Your task to perform on an android device: empty trash in google photos Image 0: 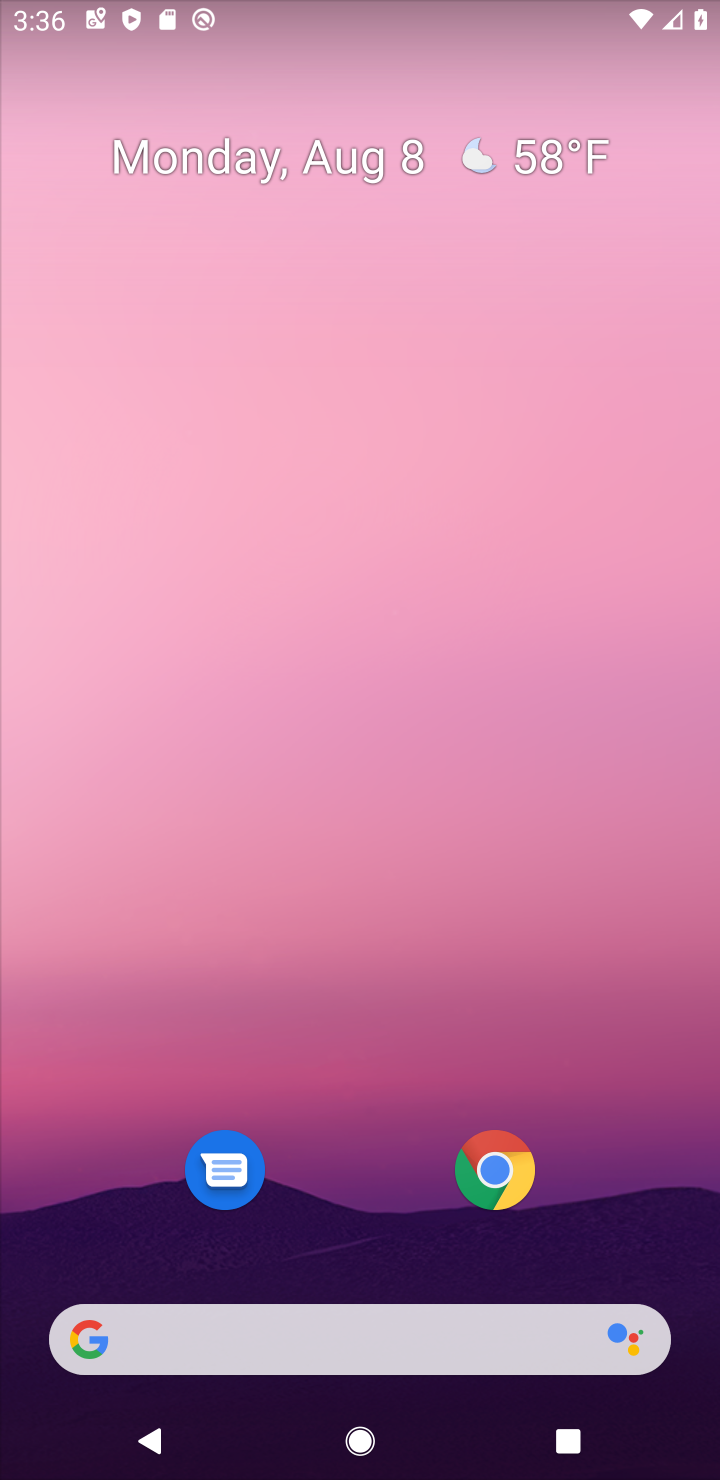
Step 0: drag from (386, 1119) to (384, 399)
Your task to perform on an android device: empty trash in google photos Image 1: 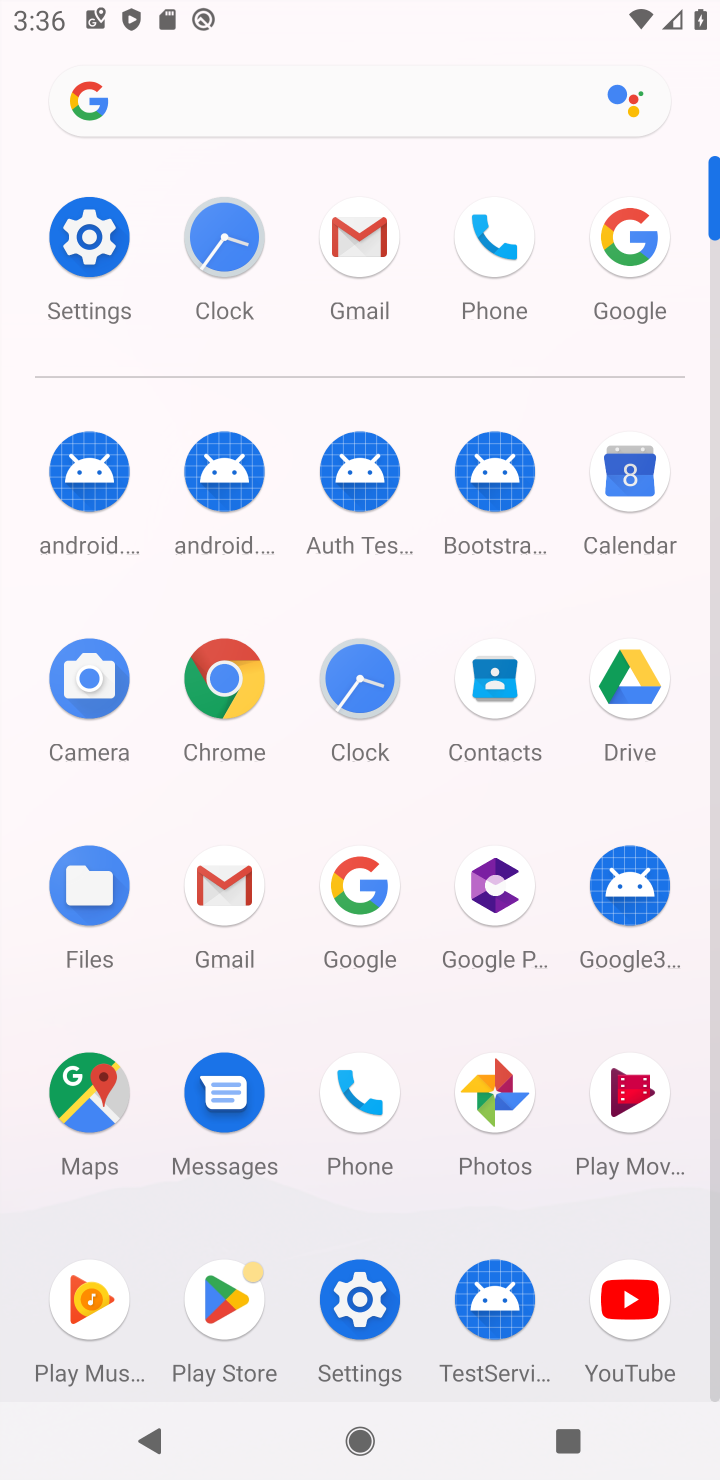
Step 1: click (486, 1111)
Your task to perform on an android device: empty trash in google photos Image 2: 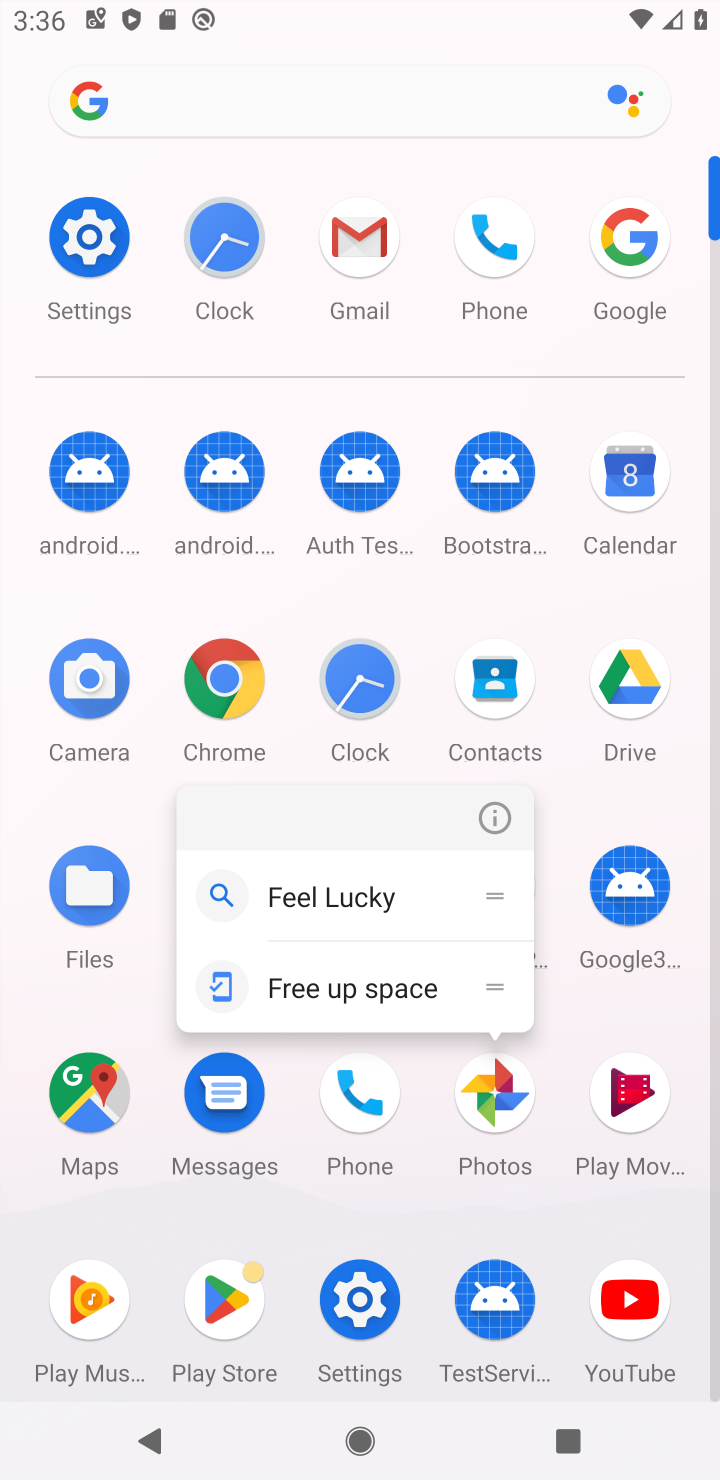
Step 2: click (486, 1111)
Your task to perform on an android device: empty trash in google photos Image 3: 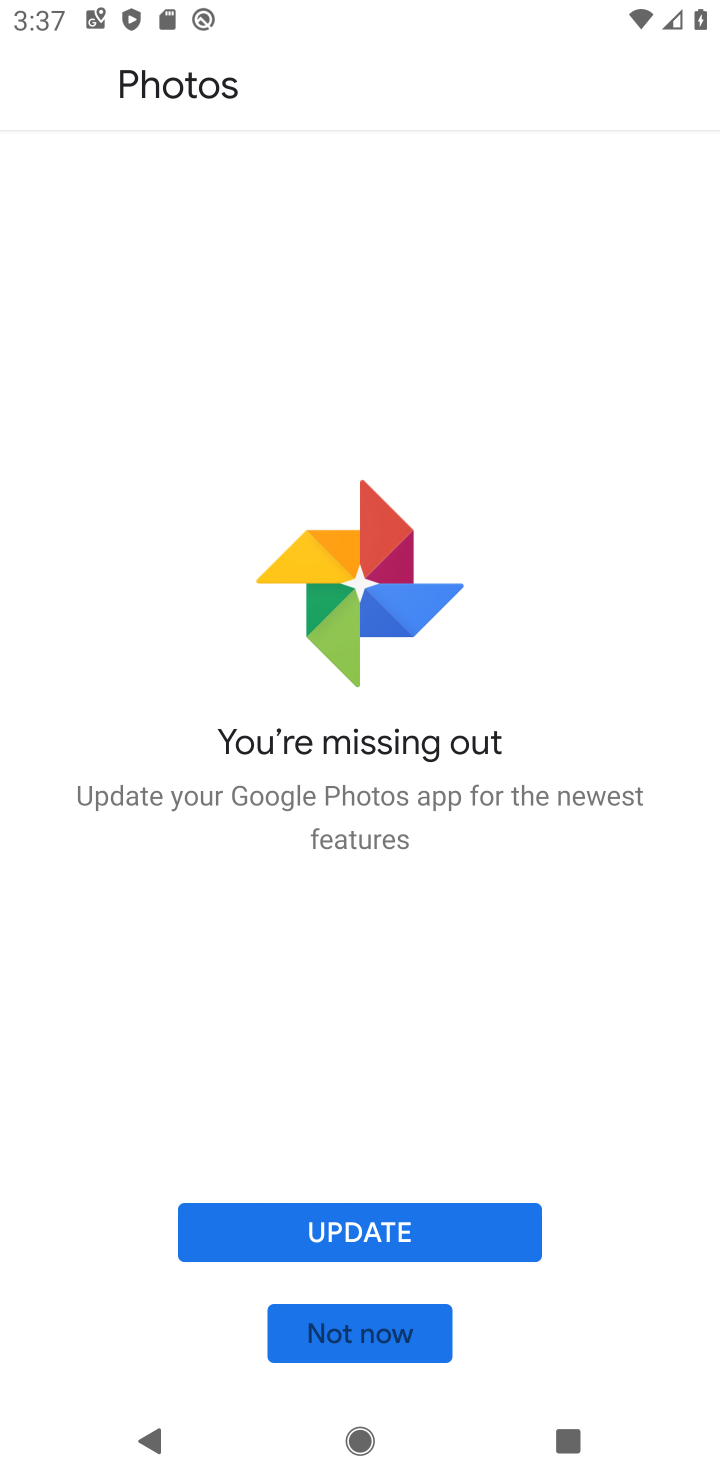
Step 3: click (376, 1333)
Your task to perform on an android device: empty trash in google photos Image 4: 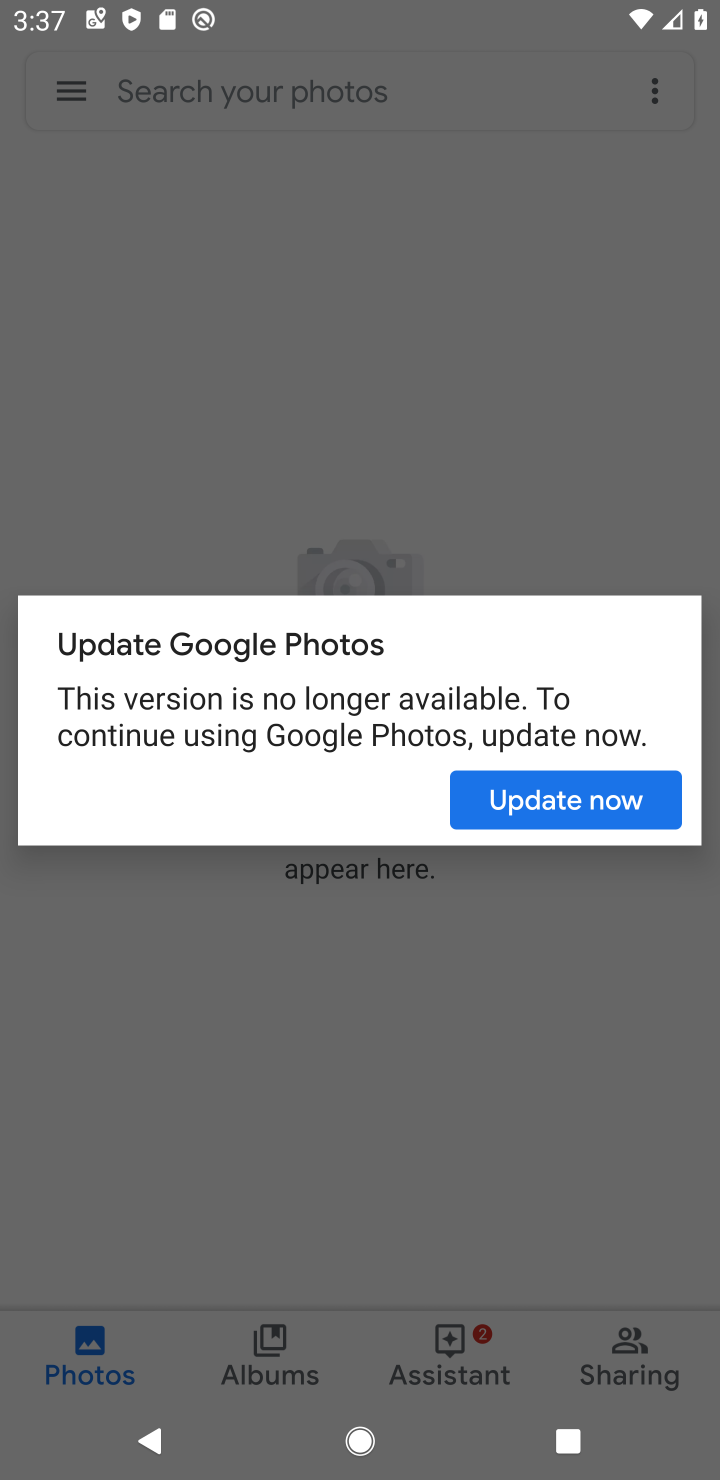
Step 4: click (531, 797)
Your task to perform on an android device: empty trash in google photos Image 5: 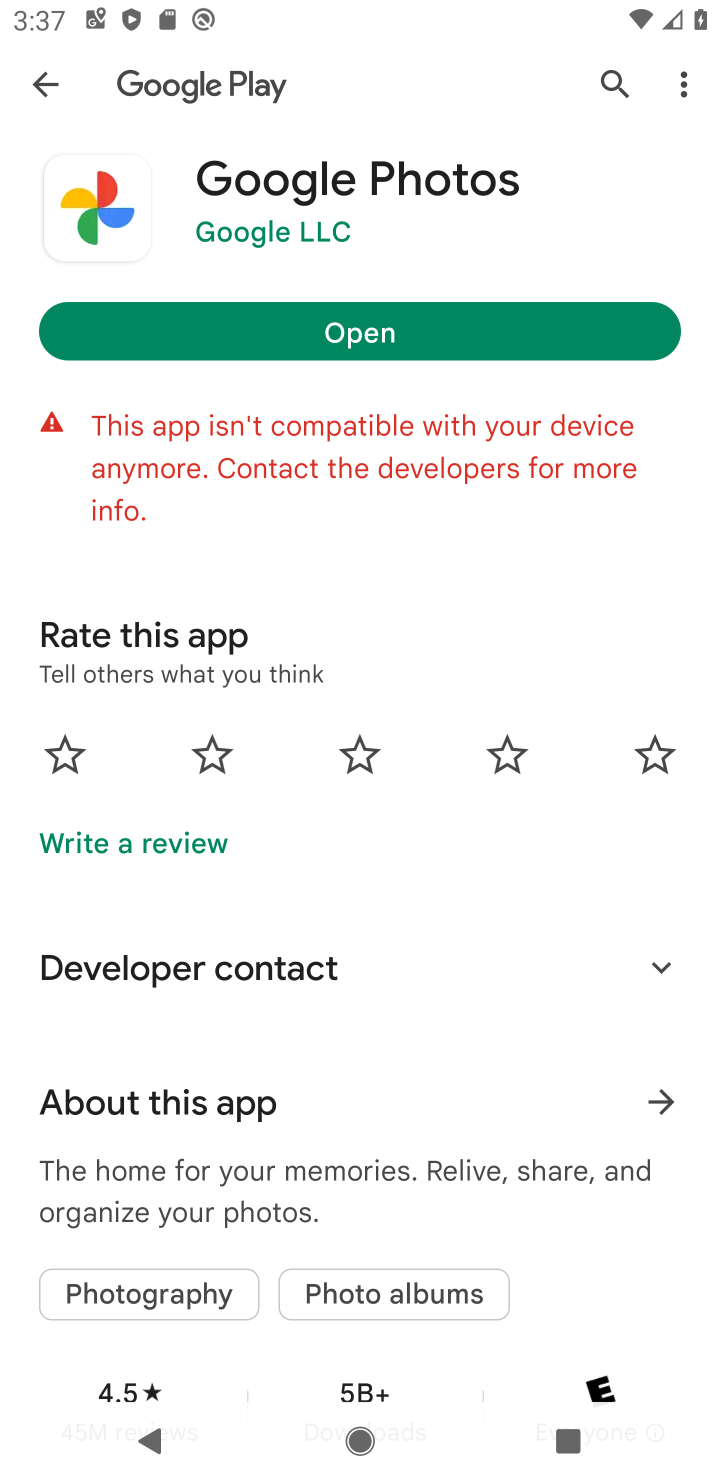
Step 5: click (349, 354)
Your task to perform on an android device: empty trash in google photos Image 6: 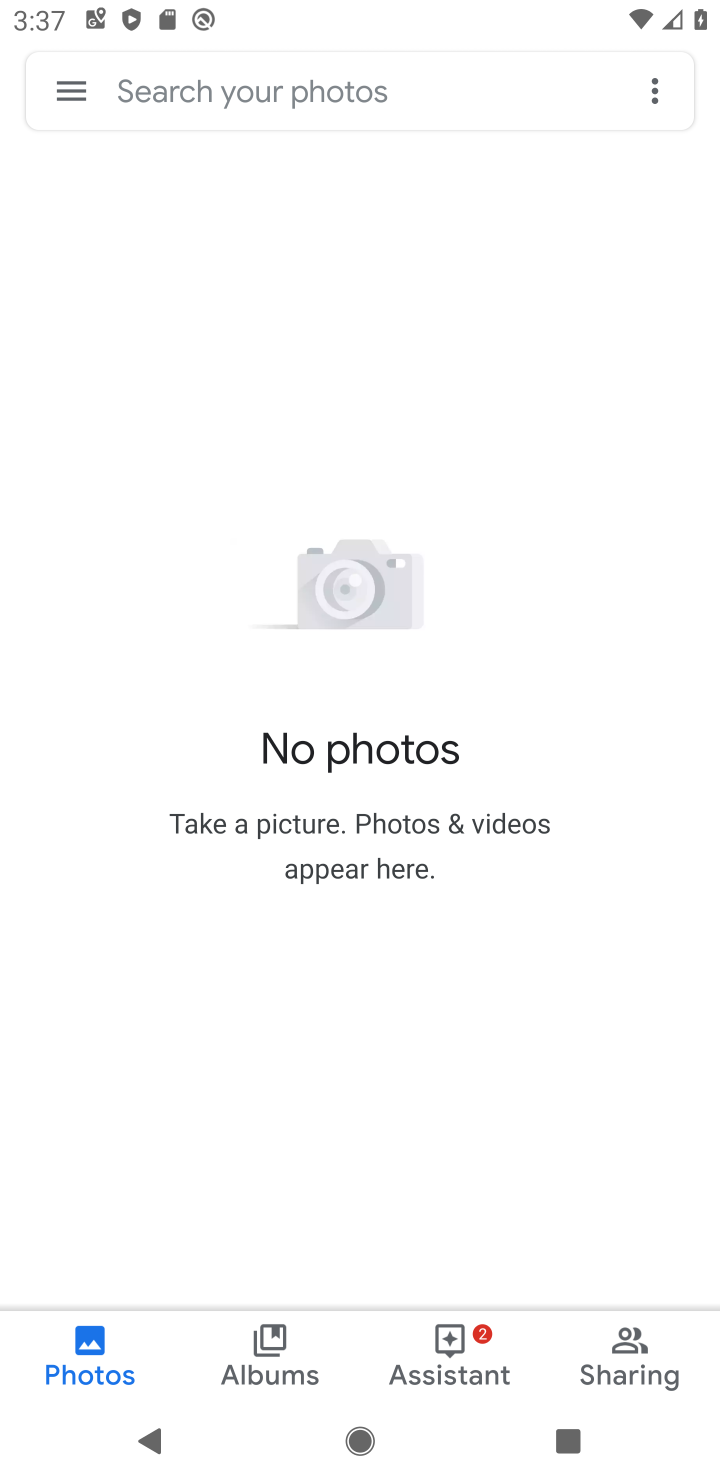
Step 6: click (80, 102)
Your task to perform on an android device: empty trash in google photos Image 7: 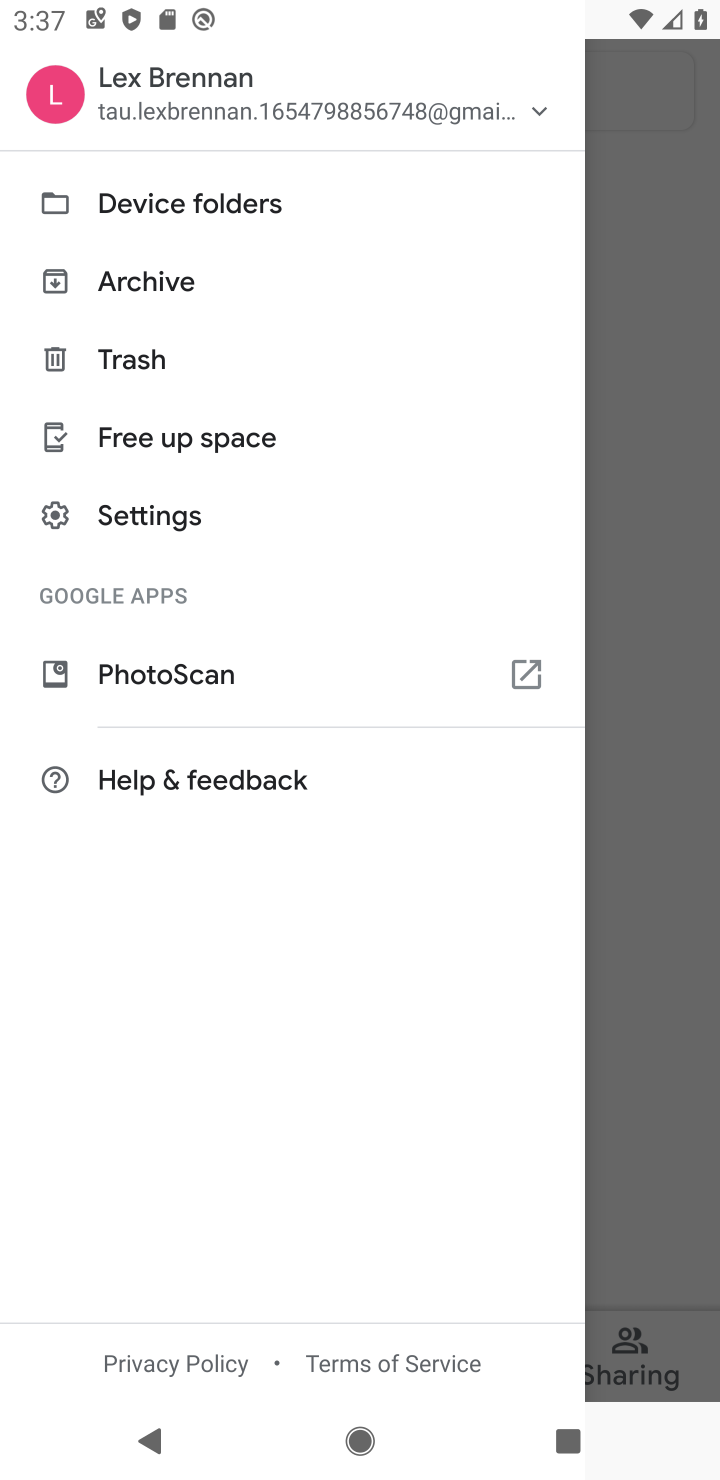
Step 7: click (159, 366)
Your task to perform on an android device: empty trash in google photos Image 8: 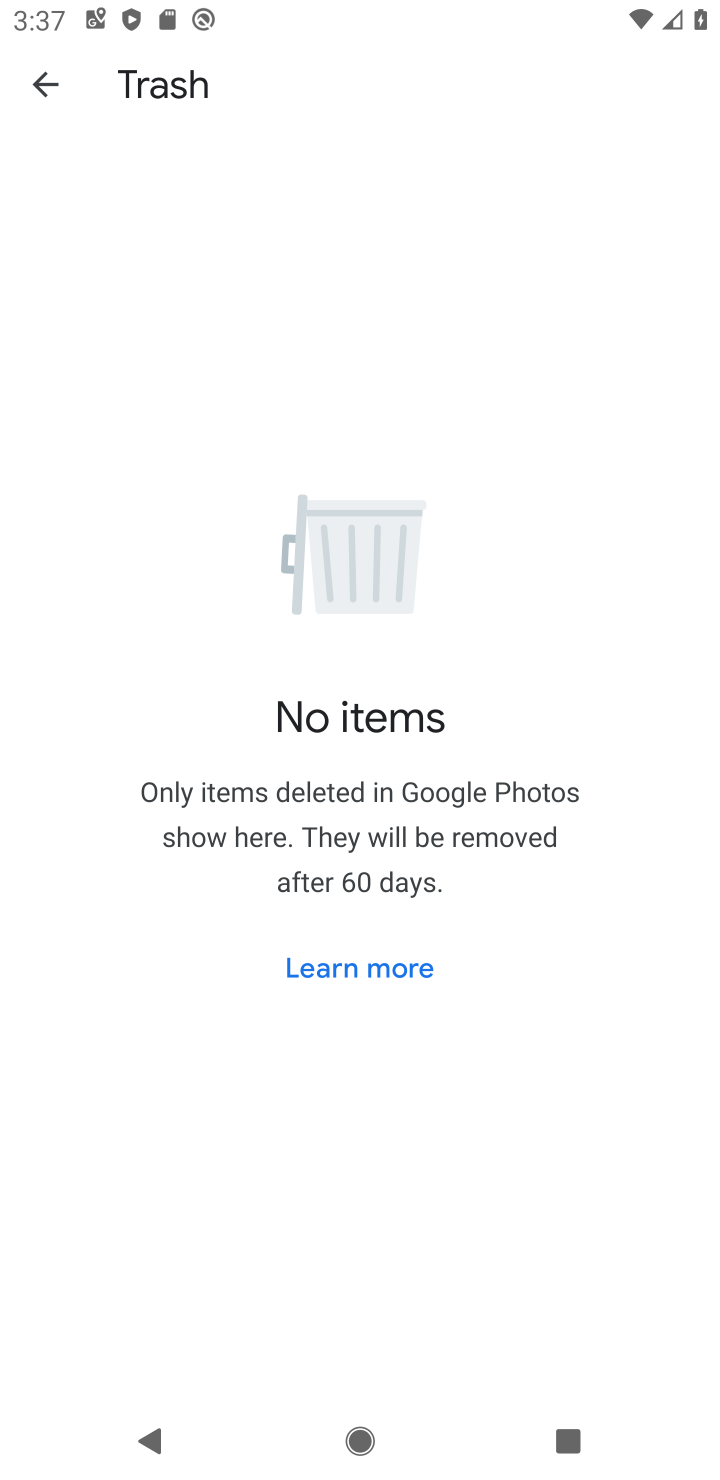
Step 8: task complete